Your task to perform on an android device: Go to display settings Image 0: 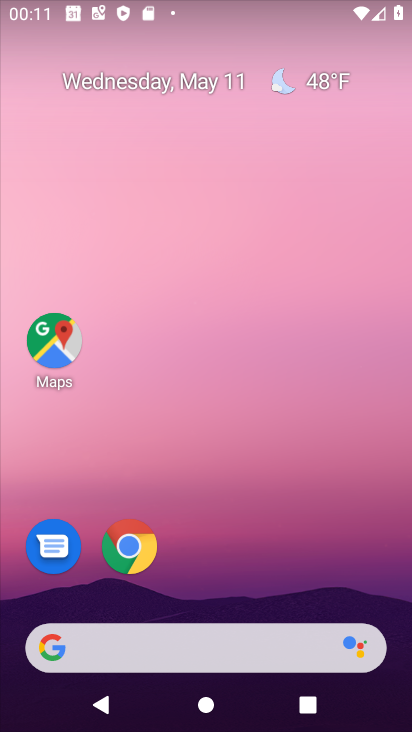
Step 0: drag from (188, 330) to (144, 16)
Your task to perform on an android device: Go to display settings Image 1: 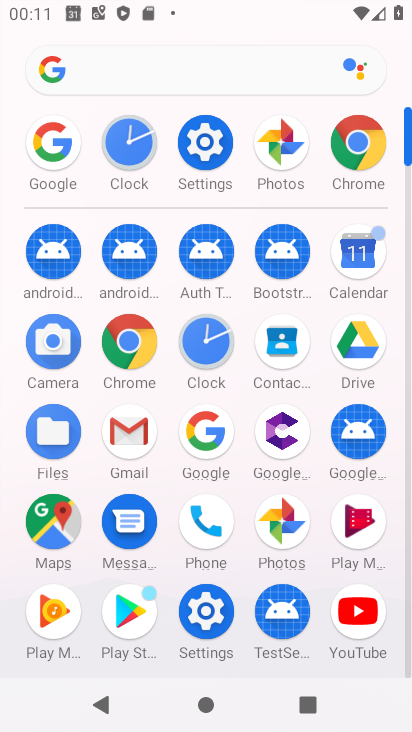
Step 1: click (192, 161)
Your task to perform on an android device: Go to display settings Image 2: 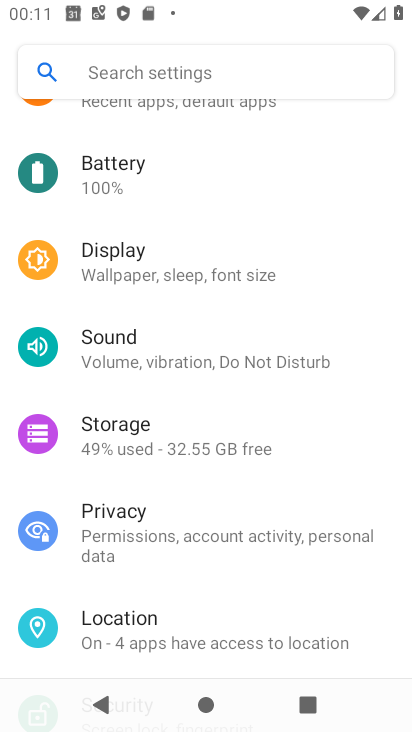
Step 2: click (158, 274)
Your task to perform on an android device: Go to display settings Image 3: 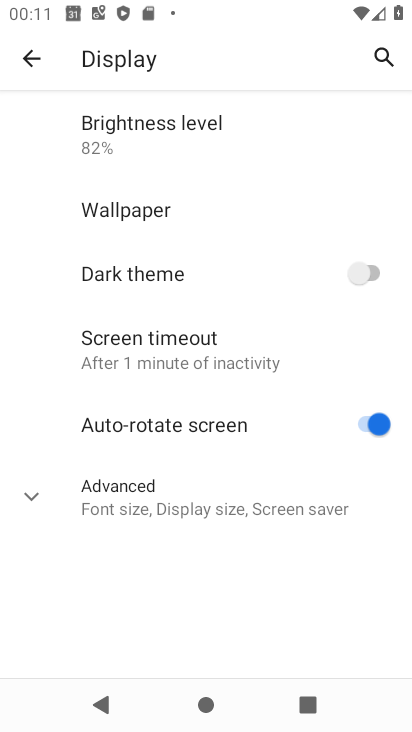
Step 3: task complete